Your task to perform on an android device: Open calendar and show me the third week of next month Image 0: 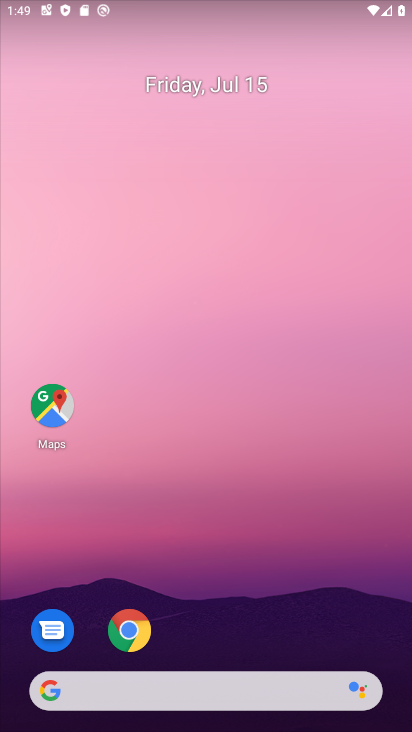
Step 0: drag from (236, 558) to (238, 28)
Your task to perform on an android device: Open calendar and show me the third week of next month Image 1: 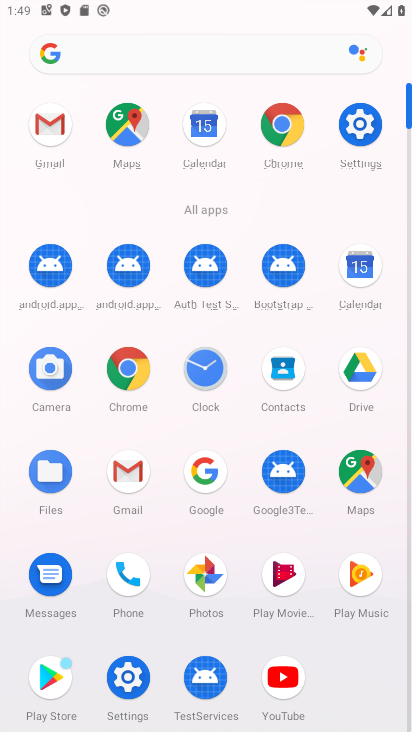
Step 1: click (350, 268)
Your task to perform on an android device: Open calendar and show me the third week of next month Image 2: 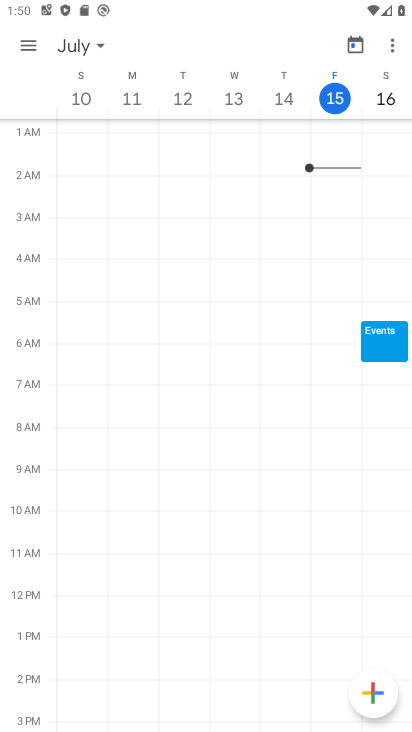
Step 2: click (100, 46)
Your task to perform on an android device: Open calendar and show me the third week of next month Image 3: 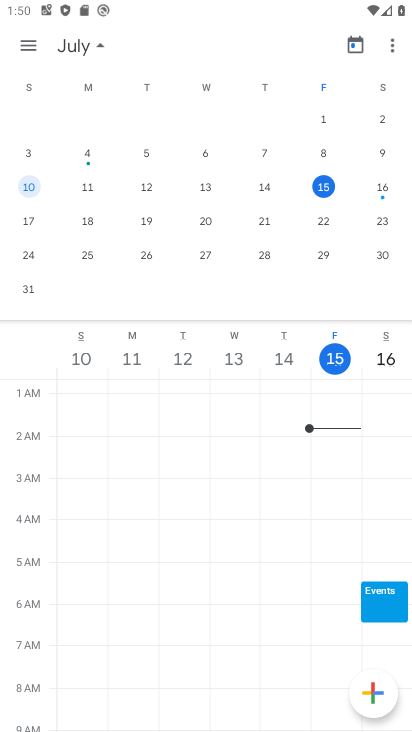
Step 3: drag from (351, 214) to (5, 146)
Your task to perform on an android device: Open calendar and show me the third week of next month Image 4: 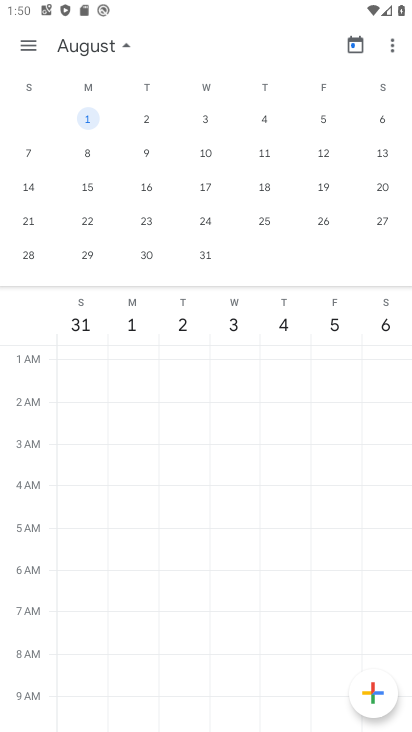
Step 4: click (145, 186)
Your task to perform on an android device: Open calendar and show me the third week of next month Image 5: 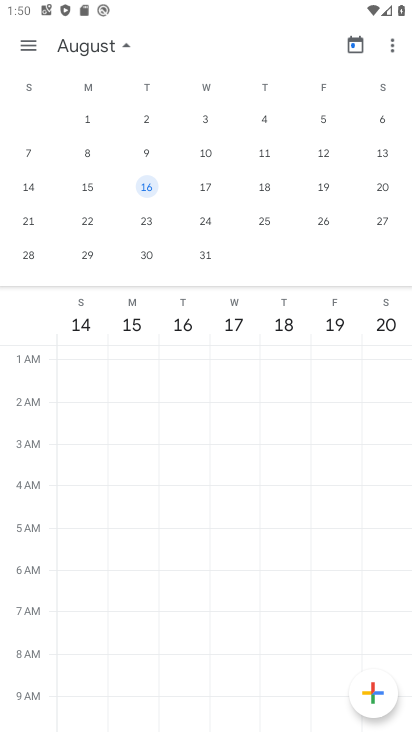
Step 5: task complete